Your task to perform on an android device: Open Wikipedia Image 0: 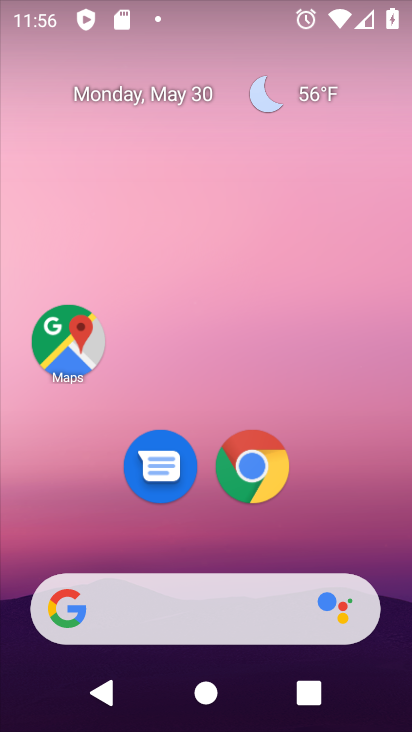
Step 0: click (254, 476)
Your task to perform on an android device: Open Wikipedia Image 1: 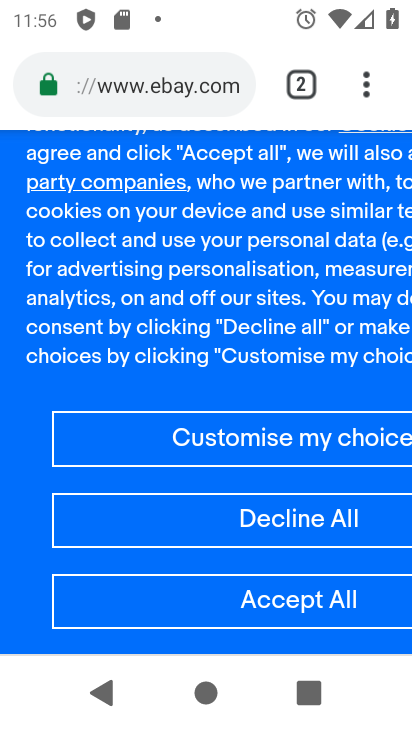
Step 1: click (187, 102)
Your task to perform on an android device: Open Wikipedia Image 2: 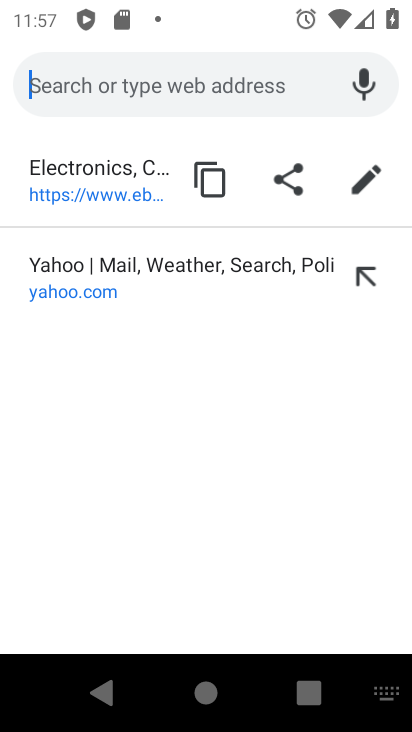
Step 2: type "wikipedia"
Your task to perform on an android device: Open Wikipedia Image 3: 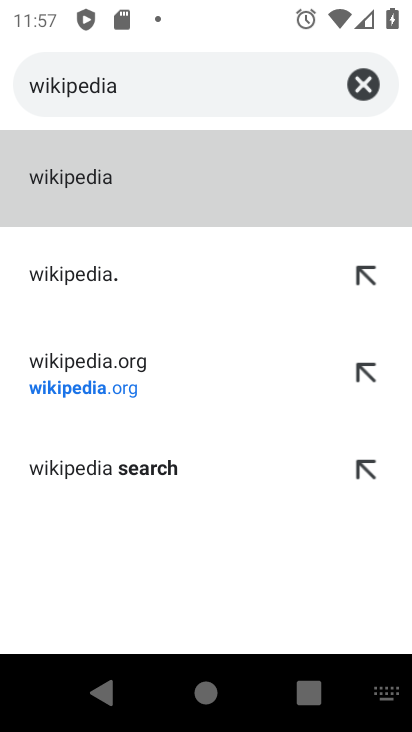
Step 3: click (132, 194)
Your task to perform on an android device: Open Wikipedia Image 4: 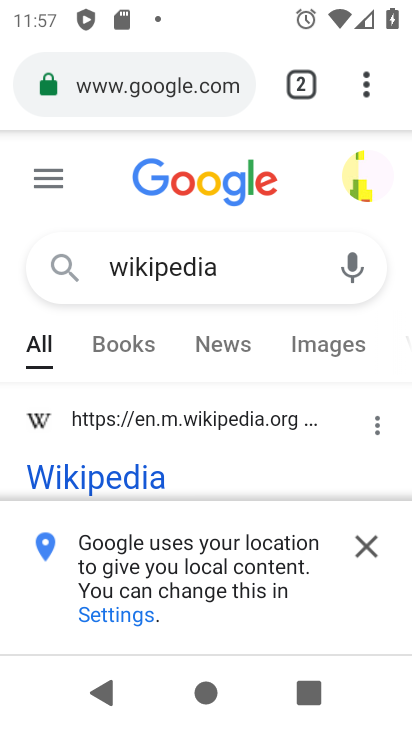
Step 4: click (120, 480)
Your task to perform on an android device: Open Wikipedia Image 5: 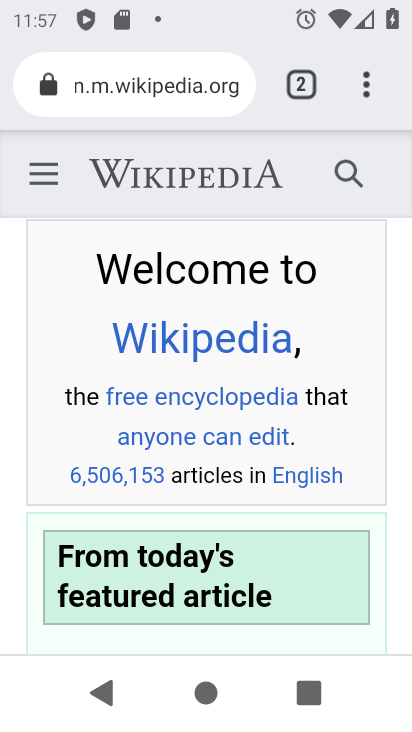
Step 5: task complete